Your task to perform on an android device: Open display settings Image 0: 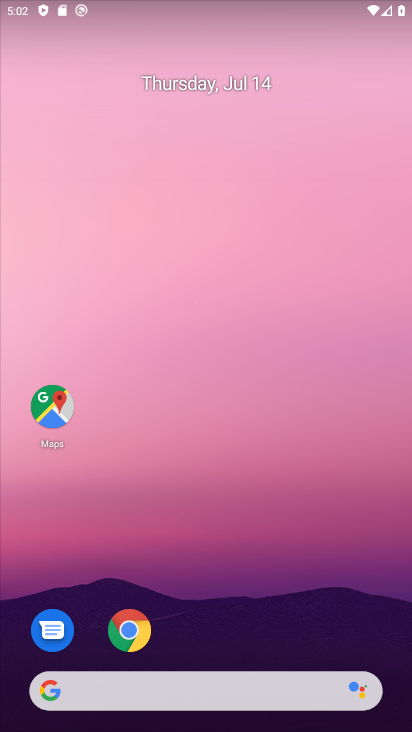
Step 0: press home button
Your task to perform on an android device: Open display settings Image 1: 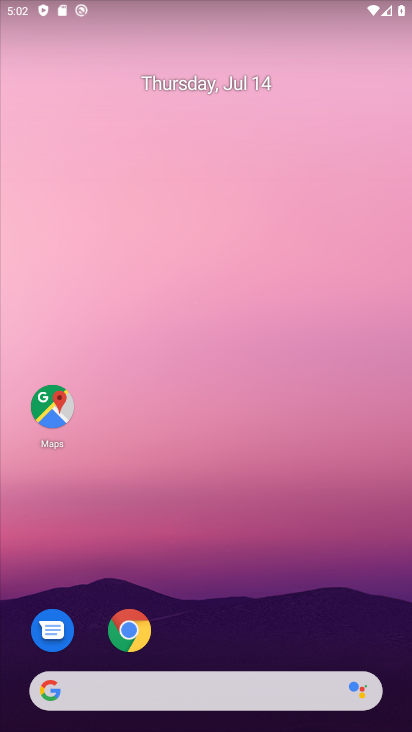
Step 1: drag from (306, 586) to (329, 43)
Your task to perform on an android device: Open display settings Image 2: 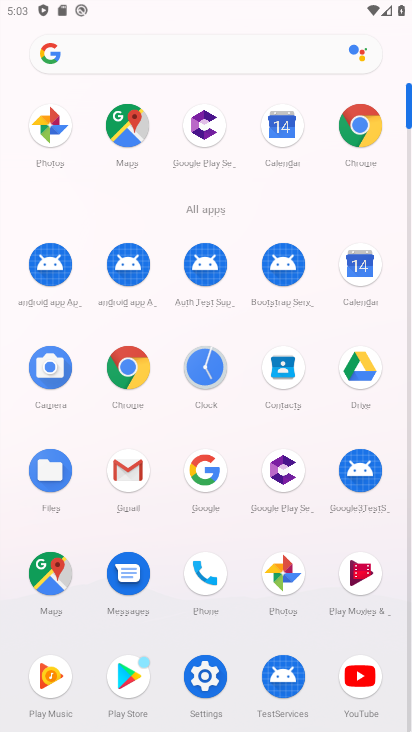
Step 2: click (196, 670)
Your task to perform on an android device: Open display settings Image 3: 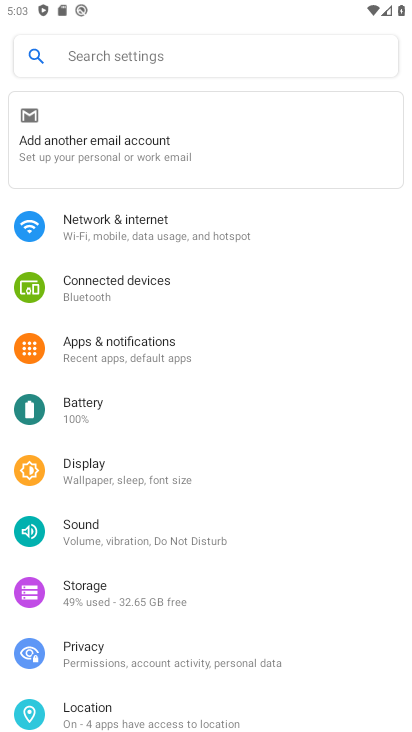
Step 3: click (71, 469)
Your task to perform on an android device: Open display settings Image 4: 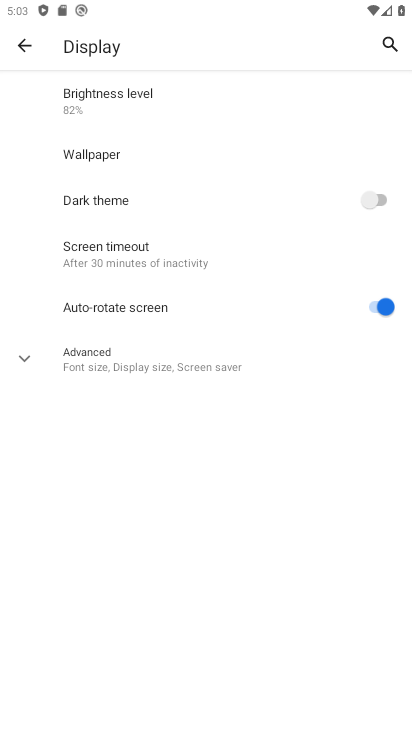
Step 4: task complete